Your task to perform on an android device: When is my next appointment? Image 0: 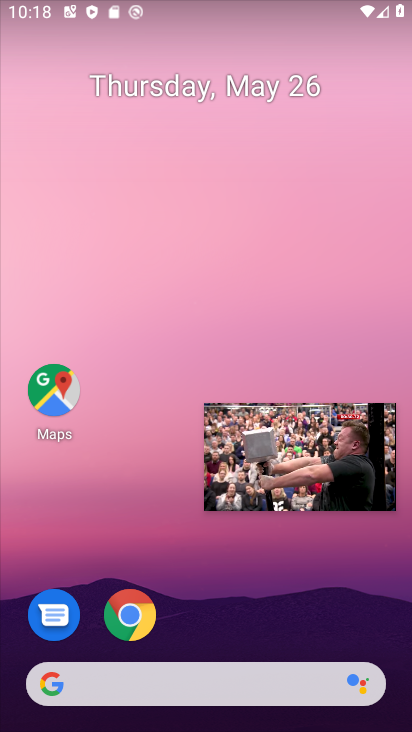
Step 0: click (385, 427)
Your task to perform on an android device: When is my next appointment? Image 1: 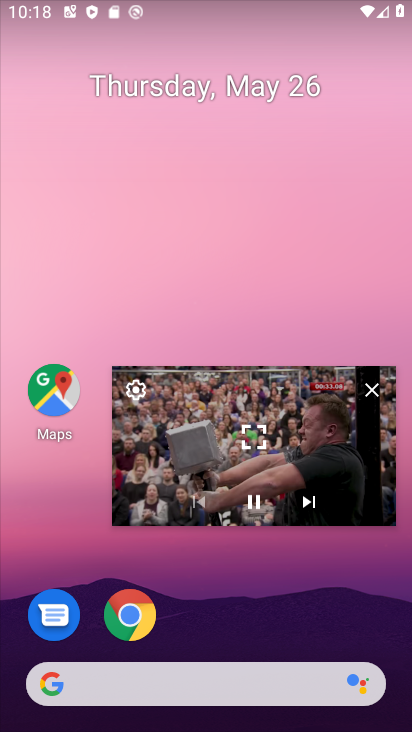
Step 1: click (378, 387)
Your task to perform on an android device: When is my next appointment? Image 2: 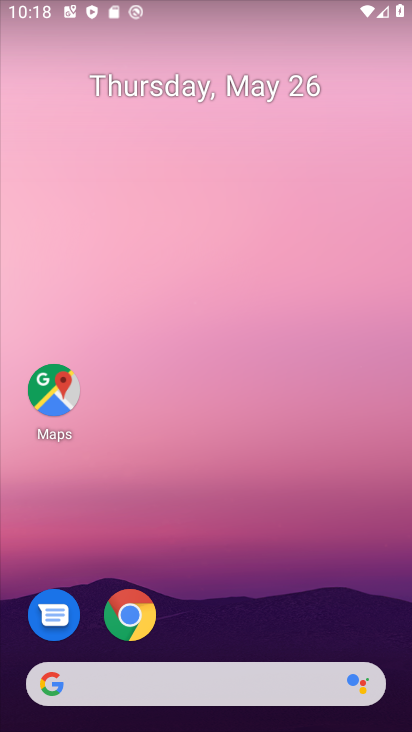
Step 2: drag from (275, 687) to (386, 217)
Your task to perform on an android device: When is my next appointment? Image 3: 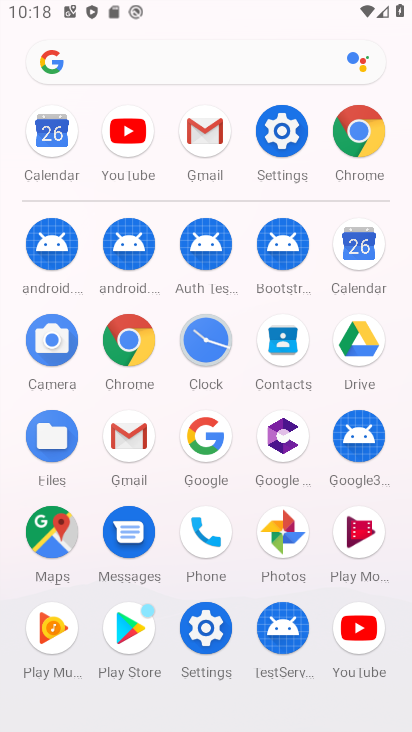
Step 3: click (142, 340)
Your task to perform on an android device: When is my next appointment? Image 4: 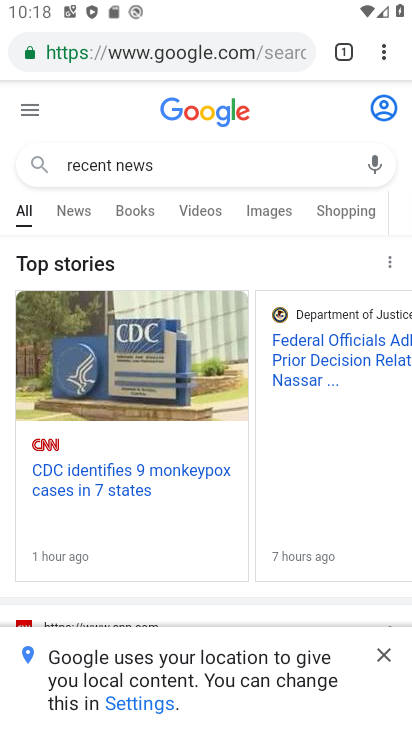
Step 4: click (254, 59)
Your task to perform on an android device: When is my next appointment? Image 5: 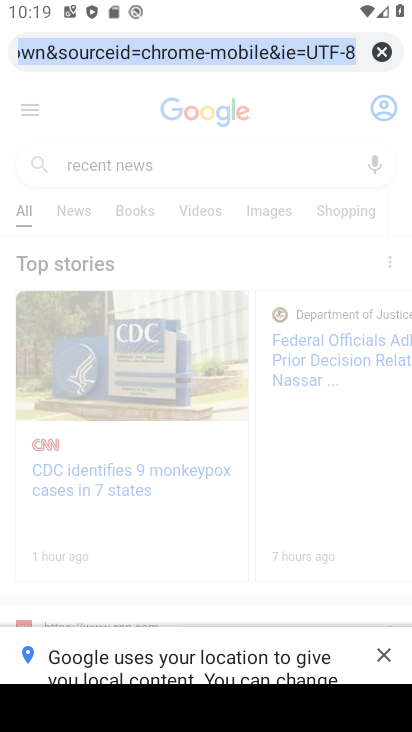
Step 5: press home button
Your task to perform on an android device: When is my next appointment? Image 6: 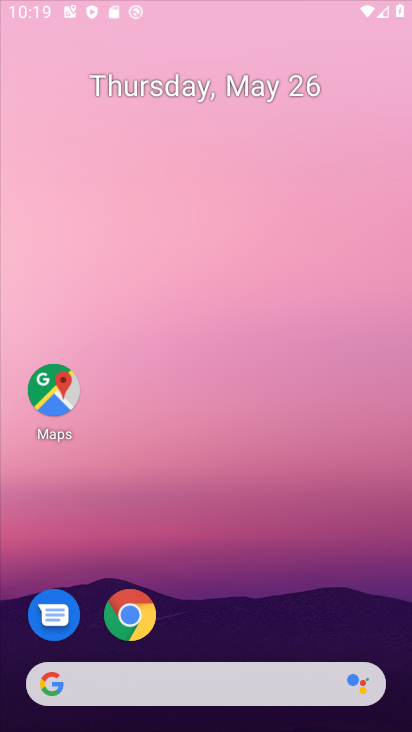
Step 6: drag from (309, 583) to (345, 13)
Your task to perform on an android device: When is my next appointment? Image 7: 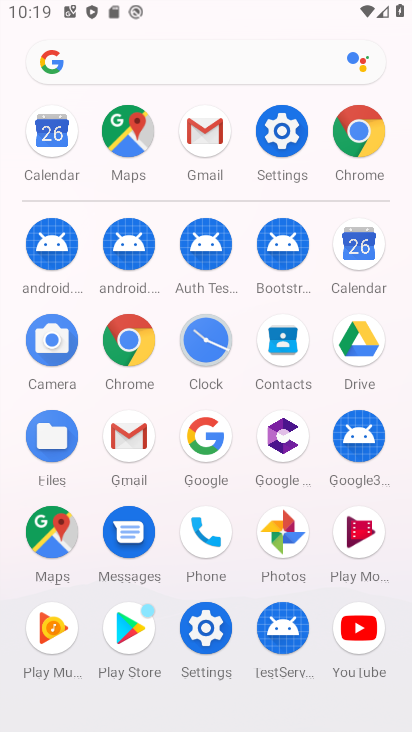
Step 7: click (380, 247)
Your task to perform on an android device: When is my next appointment? Image 8: 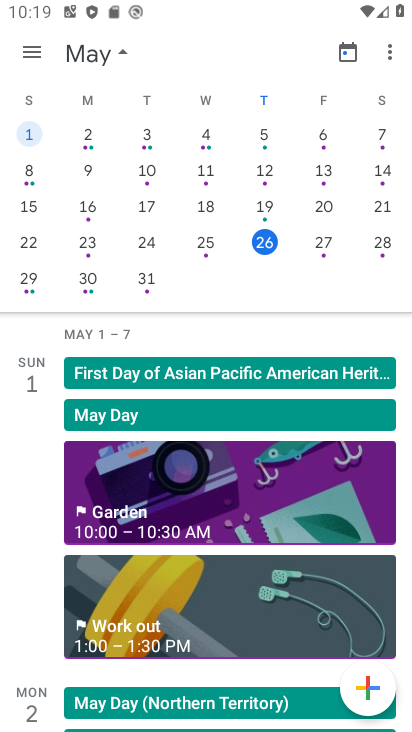
Step 8: click (315, 245)
Your task to perform on an android device: When is my next appointment? Image 9: 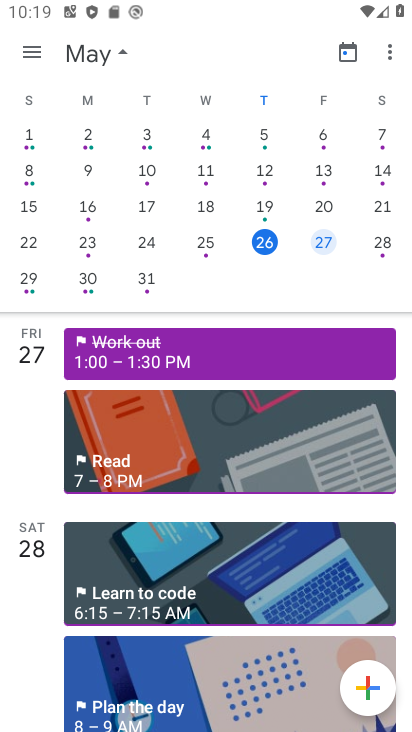
Step 9: task complete